Your task to perform on an android device: turn off priority inbox in the gmail app Image 0: 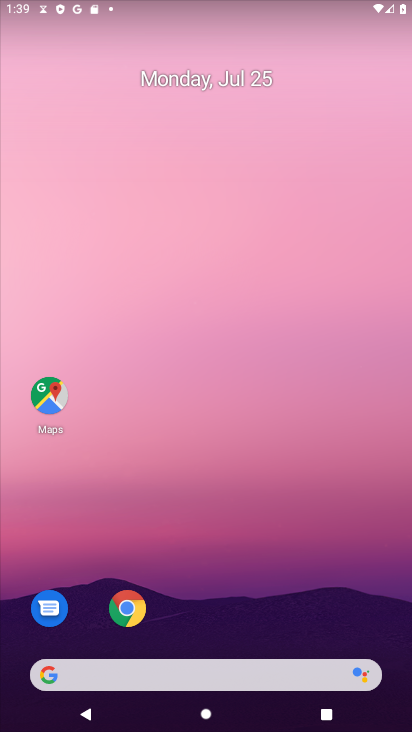
Step 0: drag from (208, 674) to (253, 168)
Your task to perform on an android device: turn off priority inbox in the gmail app Image 1: 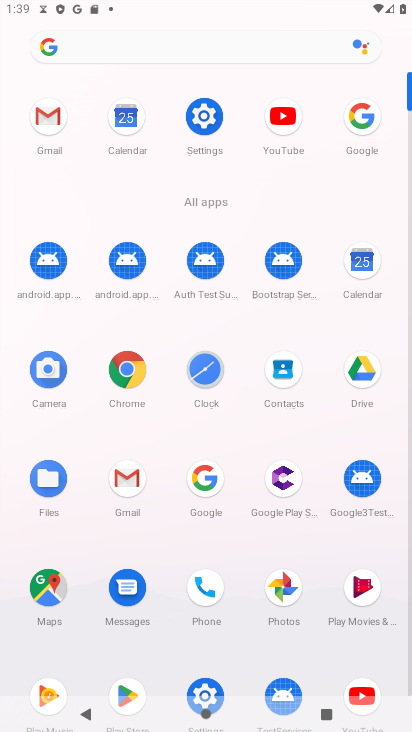
Step 1: click (126, 478)
Your task to perform on an android device: turn off priority inbox in the gmail app Image 2: 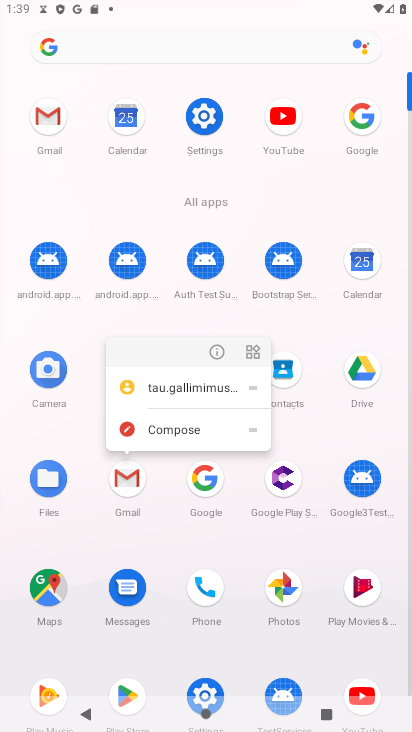
Step 2: click (126, 478)
Your task to perform on an android device: turn off priority inbox in the gmail app Image 3: 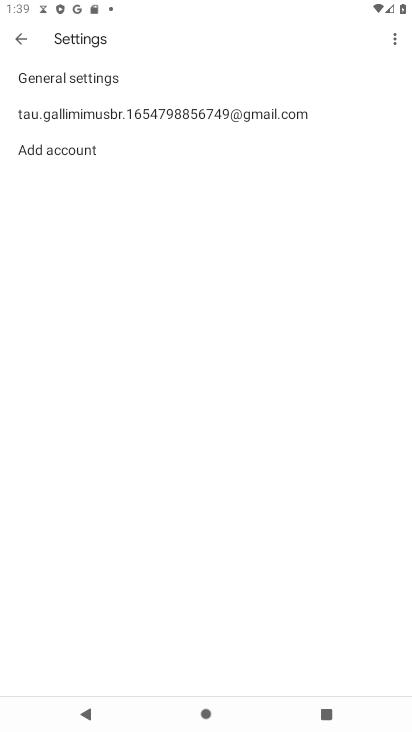
Step 3: click (222, 112)
Your task to perform on an android device: turn off priority inbox in the gmail app Image 4: 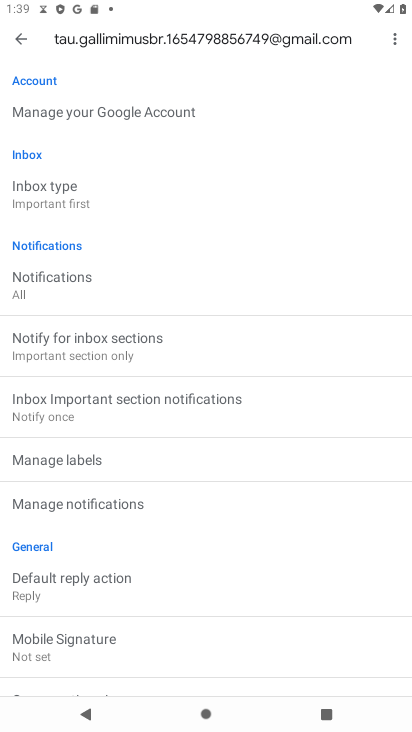
Step 4: task complete